Your task to perform on an android device: Open internet settings Image 0: 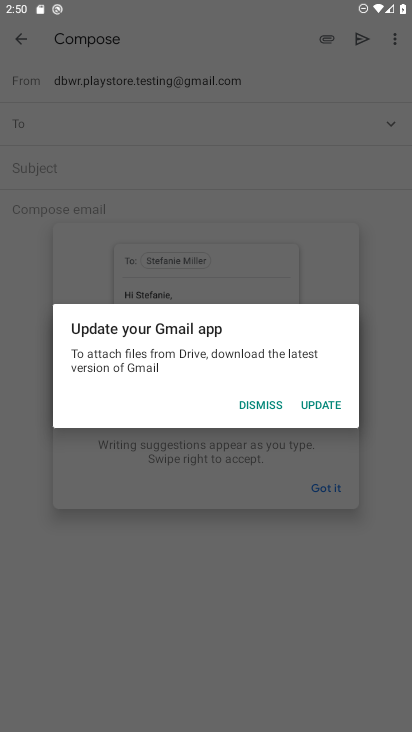
Step 0: press home button
Your task to perform on an android device: Open internet settings Image 1: 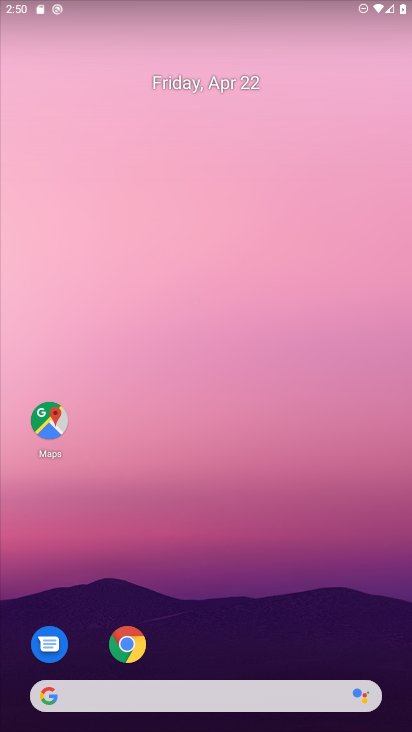
Step 1: drag from (244, 681) to (215, 222)
Your task to perform on an android device: Open internet settings Image 2: 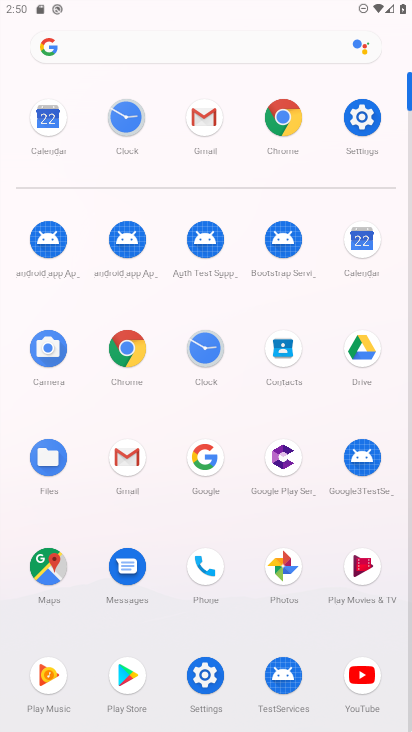
Step 2: click (368, 117)
Your task to perform on an android device: Open internet settings Image 3: 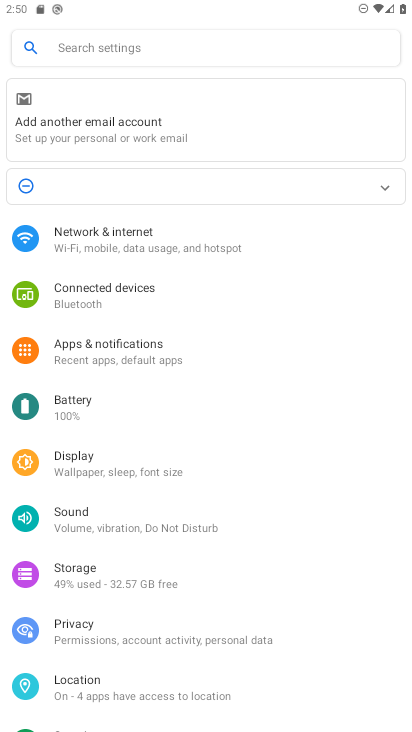
Step 3: click (193, 235)
Your task to perform on an android device: Open internet settings Image 4: 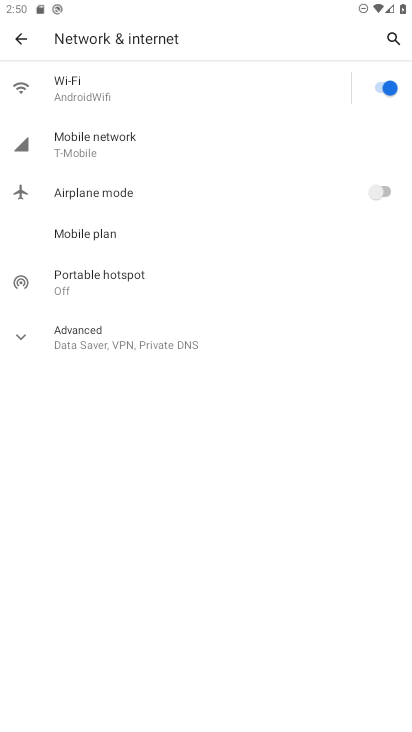
Step 4: task complete